Your task to perform on an android device: Open calendar and show me the second week of next month Image 0: 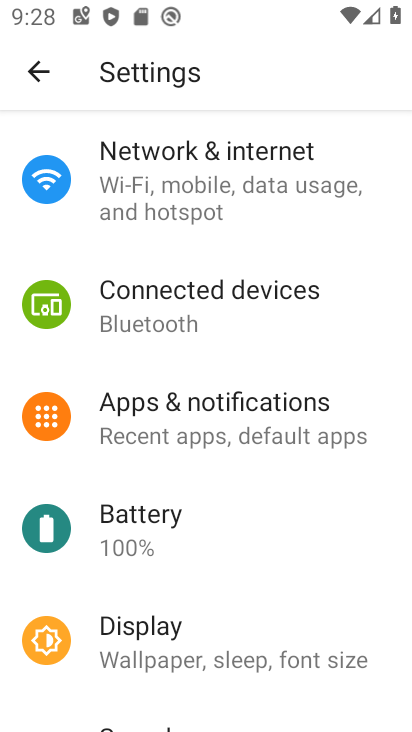
Step 0: press home button
Your task to perform on an android device: Open calendar and show me the second week of next month Image 1: 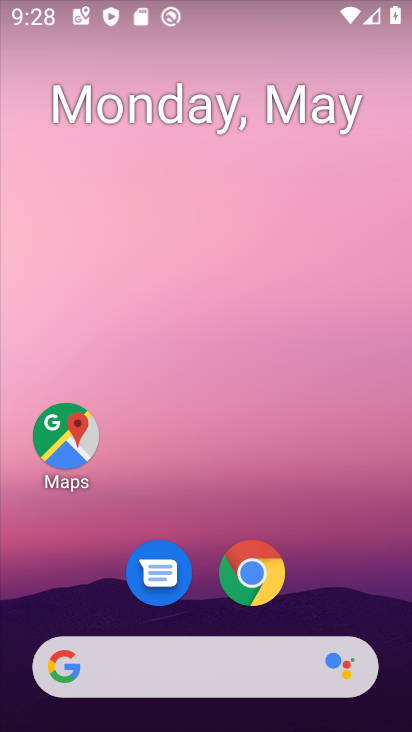
Step 1: drag from (385, 554) to (272, 61)
Your task to perform on an android device: Open calendar and show me the second week of next month Image 2: 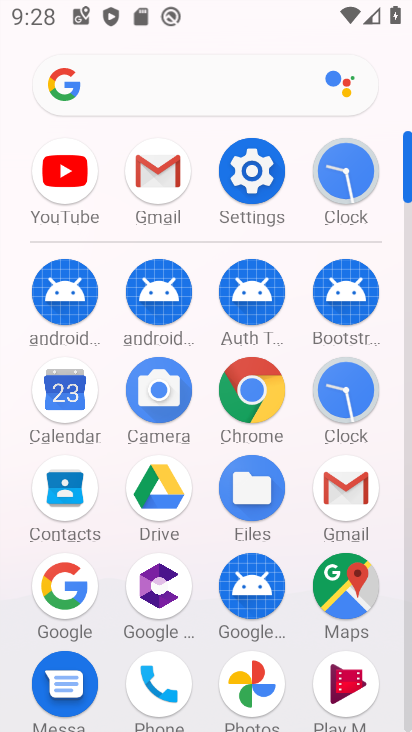
Step 2: click (67, 413)
Your task to perform on an android device: Open calendar and show me the second week of next month Image 3: 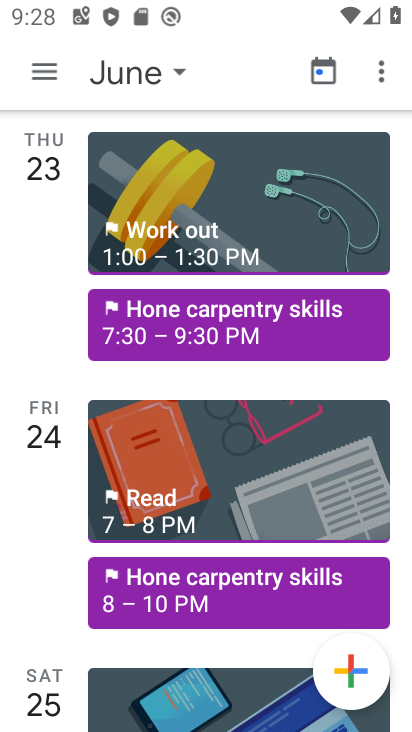
Step 3: task complete